Your task to perform on an android device: open the mobile data screen to see how much data has been used Image 0: 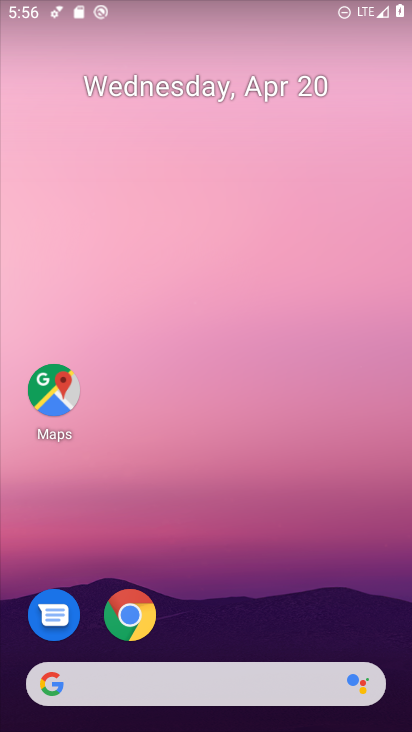
Step 0: drag from (274, 610) to (268, 0)
Your task to perform on an android device: open the mobile data screen to see how much data has been used Image 1: 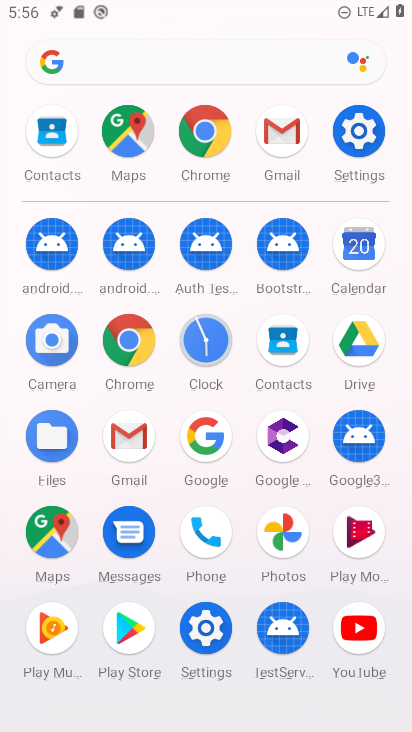
Step 1: click (352, 130)
Your task to perform on an android device: open the mobile data screen to see how much data has been used Image 2: 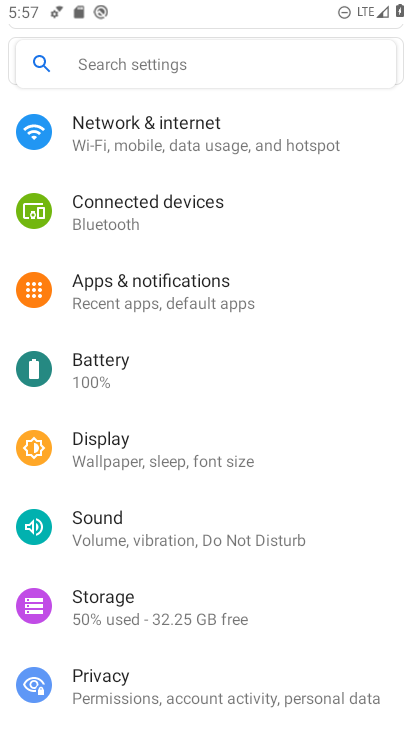
Step 2: click (206, 130)
Your task to perform on an android device: open the mobile data screen to see how much data has been used Image 3: 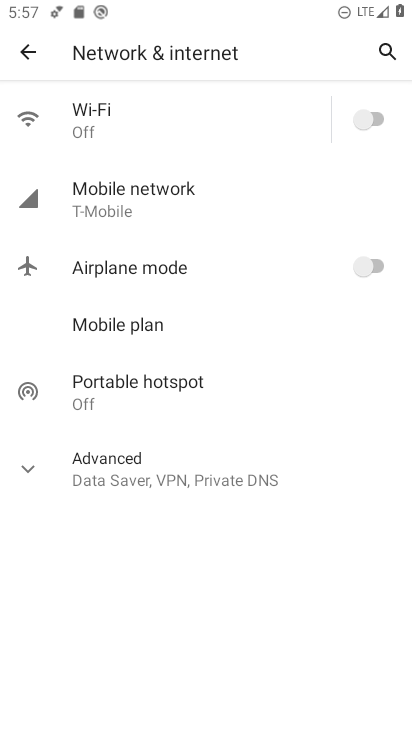
Step 3: click (103, 208)
Your task to perform on an android device: open the mobile data screen to see how much data has been used Image 4: 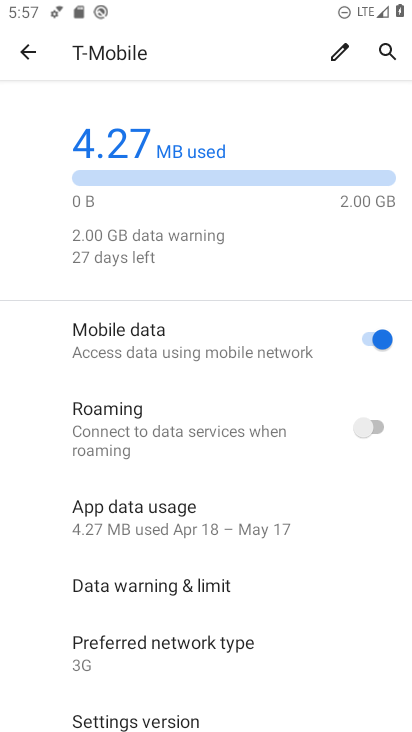
Step 4: click (186, 521)
Your task to perform on an android device: open the mobile data screen to see how much data has been used Image 5: 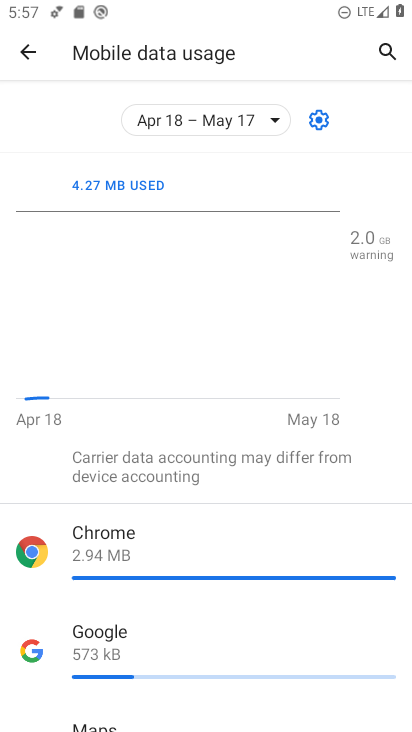
Step 5: task complete